Your task to perform on an android device: turn on showing notifications on the lock screen Image 0: 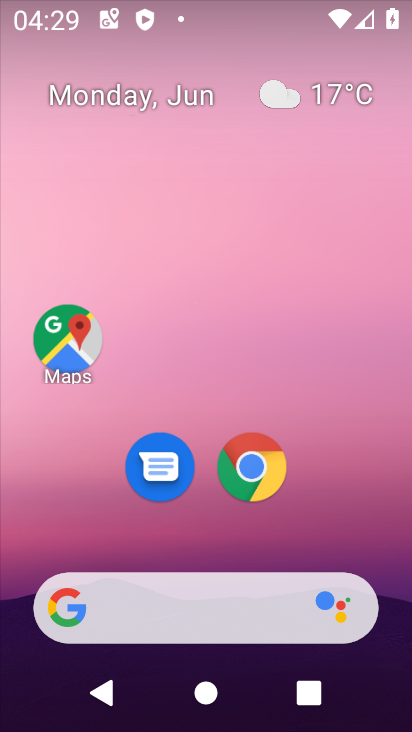
Step 0: drag from (207, 533) to (232, 253)
Your task to perform on an android device: turn on showing notifications on the lock screen Image 1: 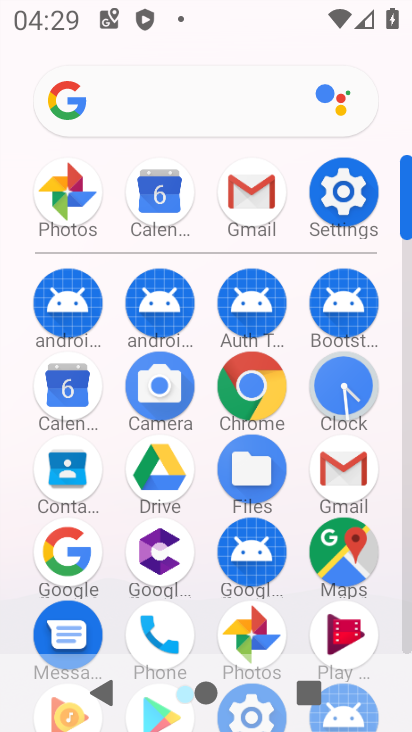
Step 1: click (355, 201)
Your task to perform on an android device: turn on showing notifications on the lock screen Image 2: 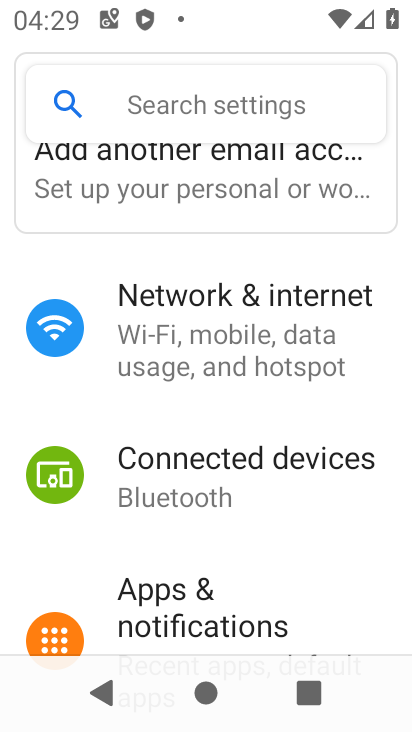
Step 2: click (187, 622)
Your task to perform on an android device: turn on showing notifications on the lock screen Image 3: 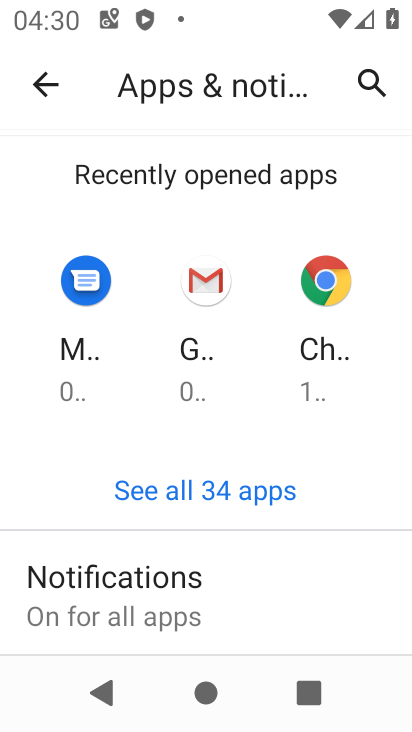
Step 3: drag from (243, 558) to (282, 211)
Your task to perform on an android device: turn on showing notifications on the lock screen Image 4: 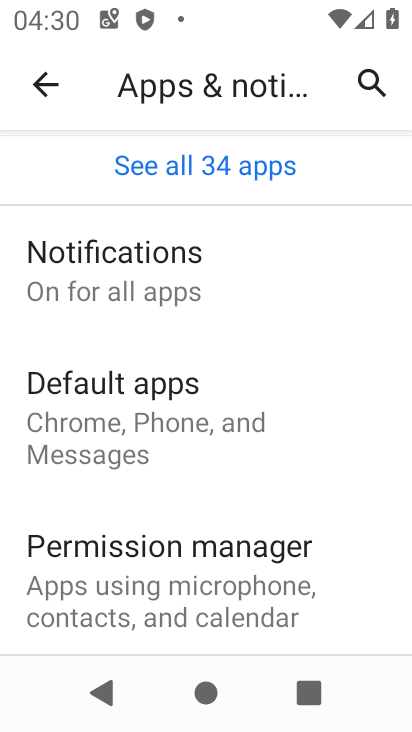
Step 4: click (135, 305)
Your task to perform on an android device: turn on showing notifications on the lock screen Image 5: 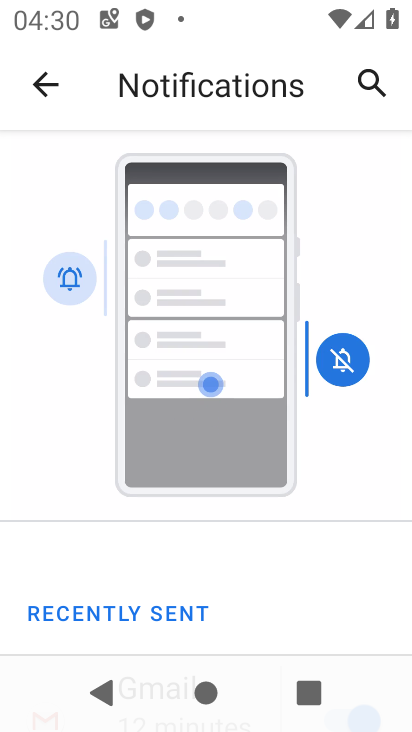
Step 5: drag from (193, 530) to (238, 234)
Your task to perform on an android device: turn on showing notifications on the lock screen Image 6: 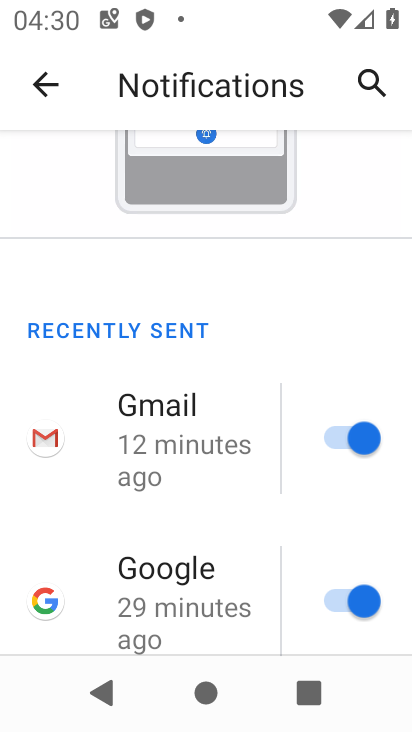
Step 6: drag from (204, 509) to (238, 268)
Your task to perform on an android device: turn on showing notifications on the lock screen Image 7: 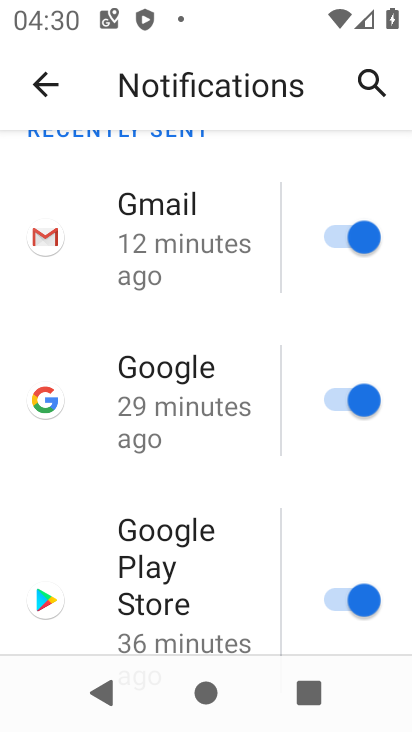
Step 7: drag from (231, 583) to (260, 407)
Your task to perform on an android device: turn on showing notifications on the lock screen Image 8: 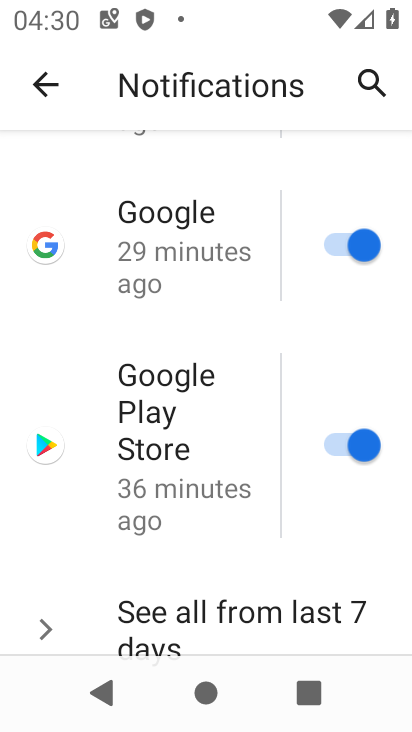
Step 8: drag from (206, 564) to (220, 381)
Your task to perform on an android device: turn on showing notifications on the lock screen Image 9: 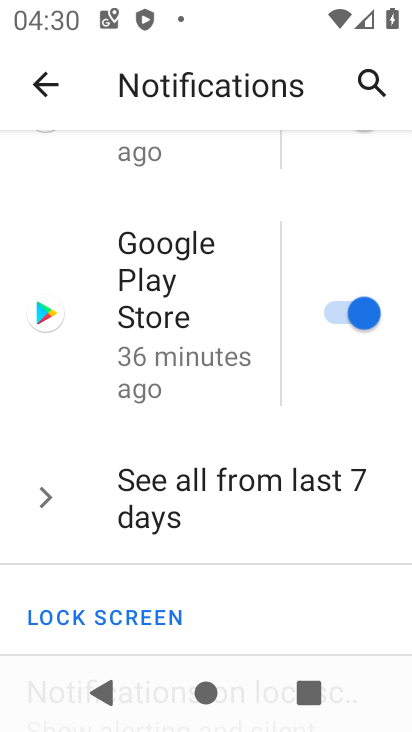
Step 9: drag from (227, 552) to (268, 260)
Your task to perform on an android device: turn on showing notifications on the lock screen Image 10: 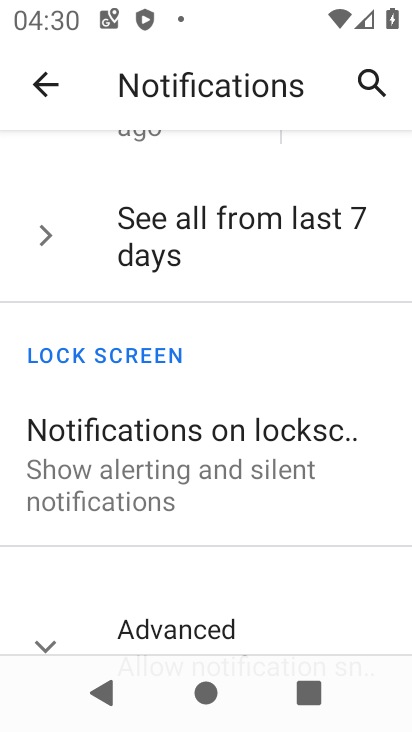
Step 10: click (184, 443)
Your task to perform on an android device: turn on showing notifications on the lock screen Image 11: 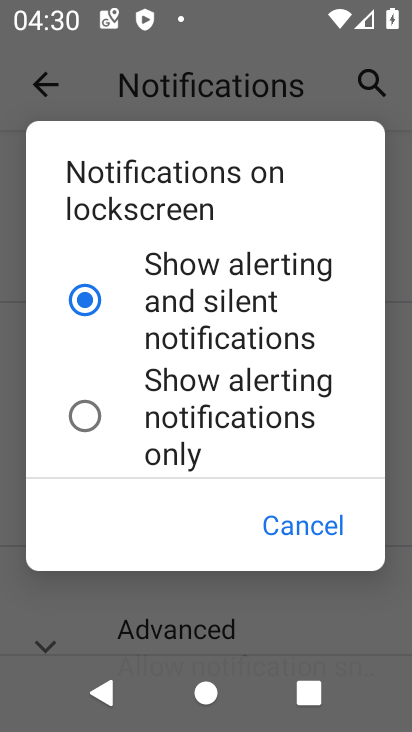
Step 11: task complete